Your task to perform on an android device: What is the news today? Image 0: 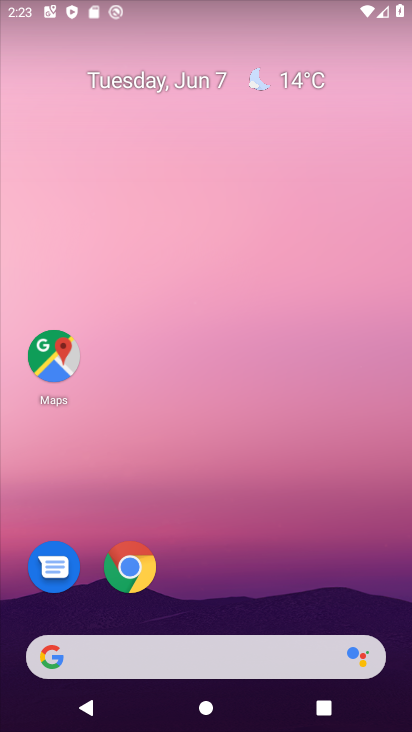
Step 0: drag from (204, 585) to (208, 269)
Your task to perform on an android device: What is the news today? Image 1: 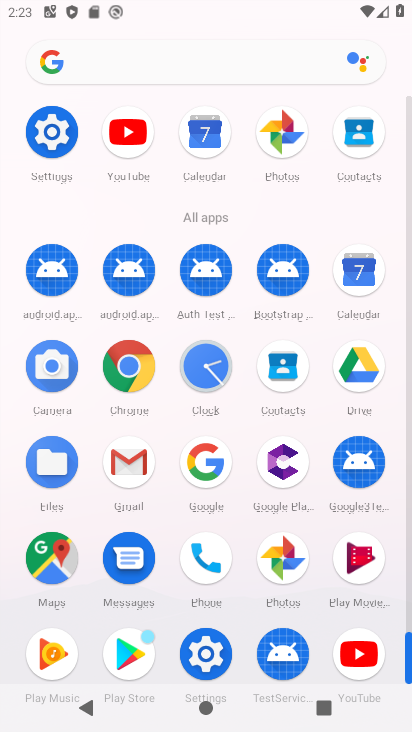
Step 1: click (194, 463)
Your task to perform on an android device: What is the news today? Image 2: 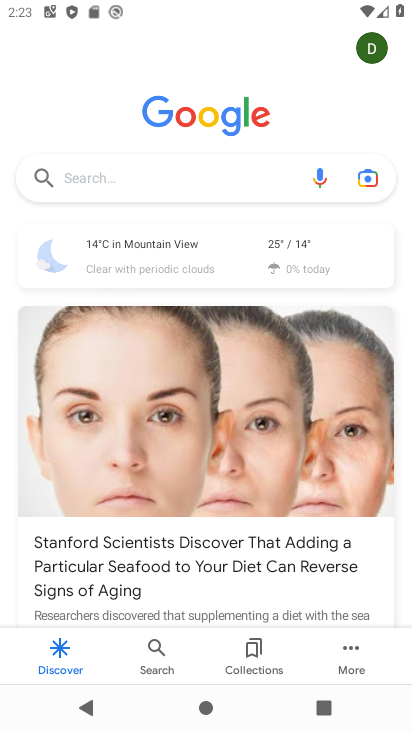
Step 2: click (176, 187)
Your task to perform on an android device: What is the news today? Image 3: 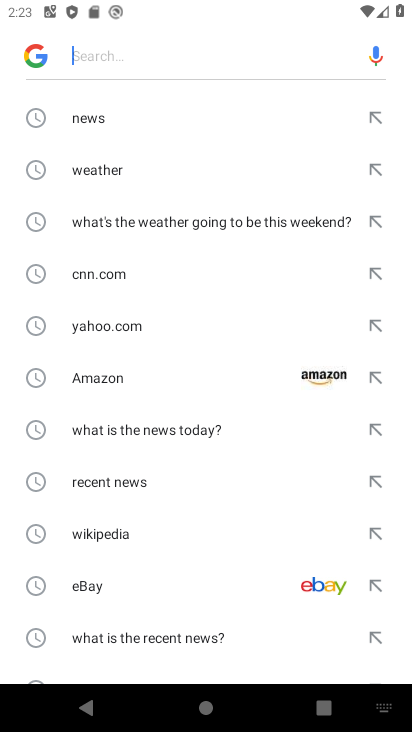
Step 3: click (123, 123)
Your task to perform on an android device: What is the news today? Image 4: 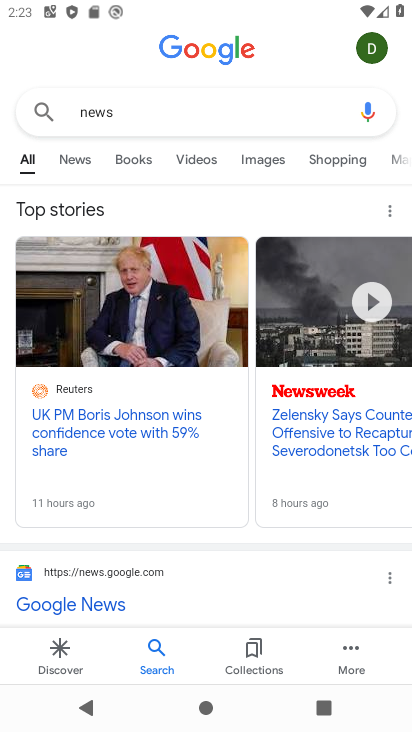
Step 4: click (78, 169)
Your task to perform on an android device: What is the news today? Image 5: 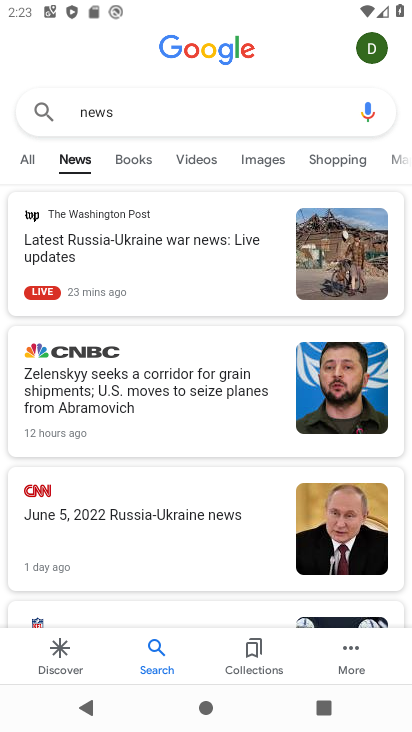
Step 5: task complete